Your task to perform on an android device: Open the Play Movies app and select the watchlist tab. Image 0: 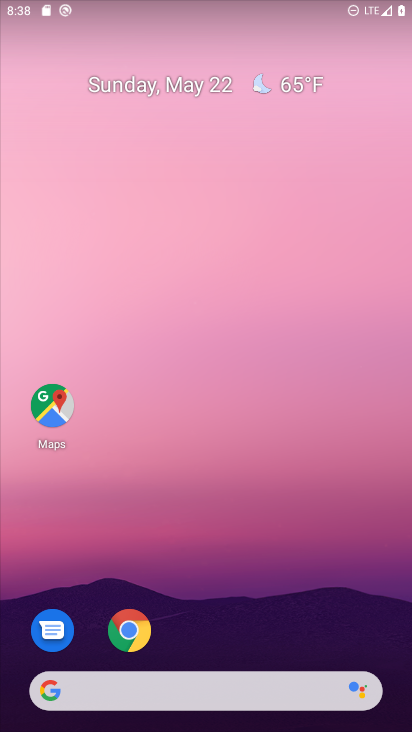
Step 0: drag from (189, 686) to (331, 75)
Your task to perform on an android device: Open the Play Movies app and select the watchlist tab. Image 1: 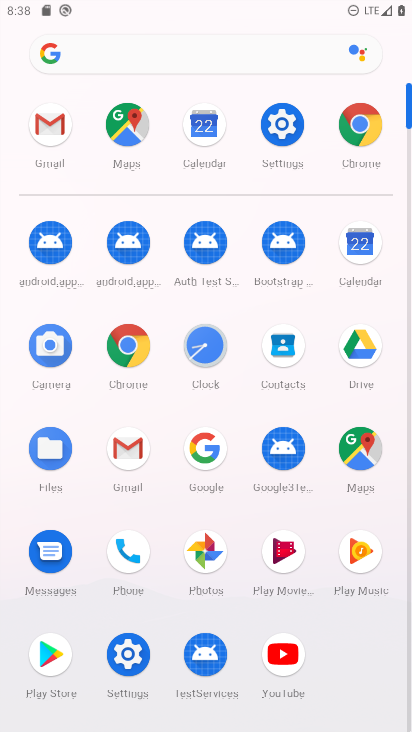
Step 1: click (280, 555)
Your task to perform on an android device: Open the Play Movies app and select the watchlist tab. Image 2: 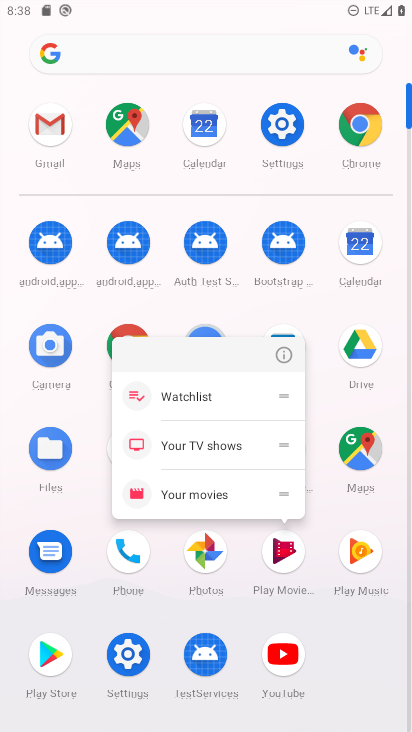
Step 2: click (284, 552)
Your task to perform on an android device: Open the Play Movies app and select the watchlist tab. Image 3: 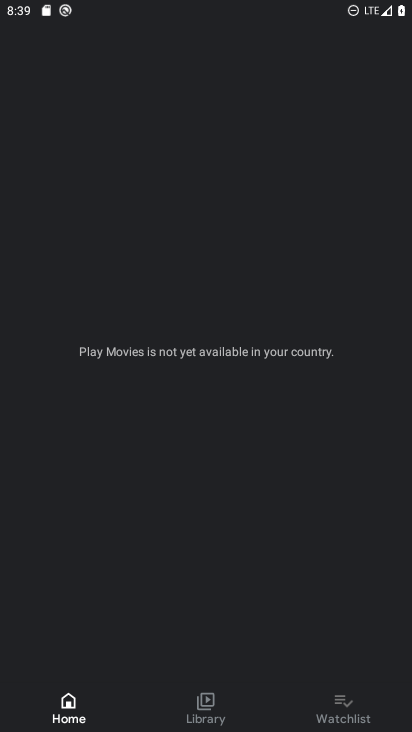
Step 3: task complete